Your task to perform on an android device: Go to Yahoo.com Image 0: 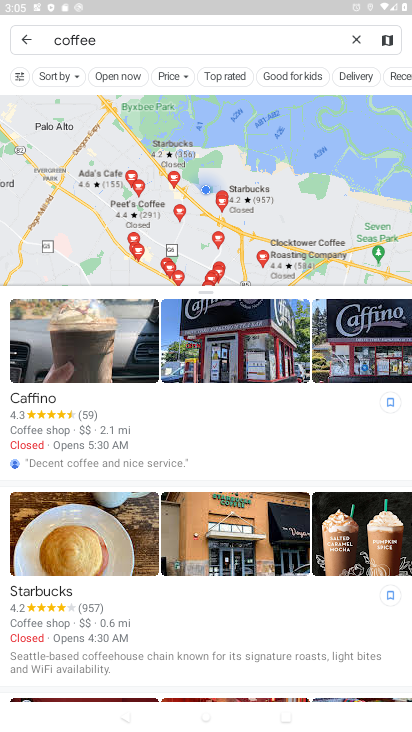
Step 0: press home button
Your task to perform on an android device: Go to Yahoo.com Image 1: 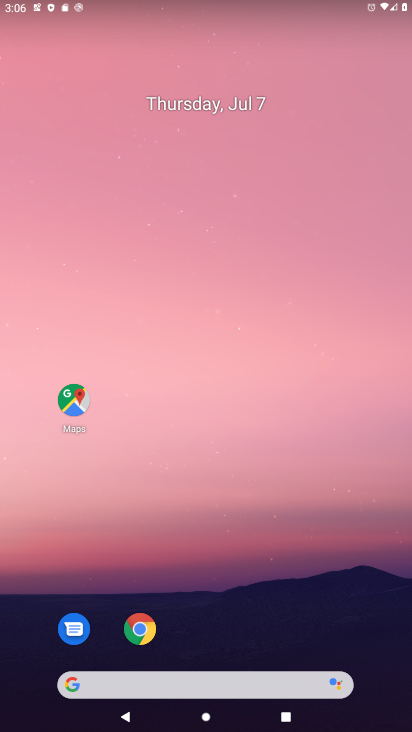
Step 1: click (137, 629)
Your task to perform on an android device: Go to Yahoo.com Image 2: 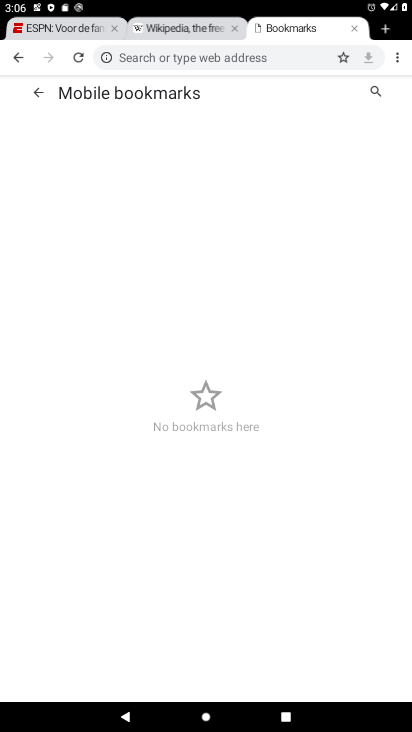
Step 2: click (137, 629)
Your task to perform on an android device: Go to Yahoo.com Image 3: 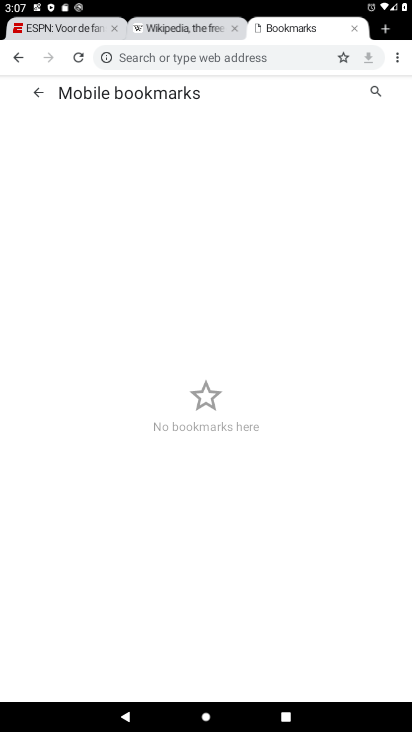
Step 3: click (382, 30)
Your task to perform on an android device: Go to Yahoo.com Image 4: 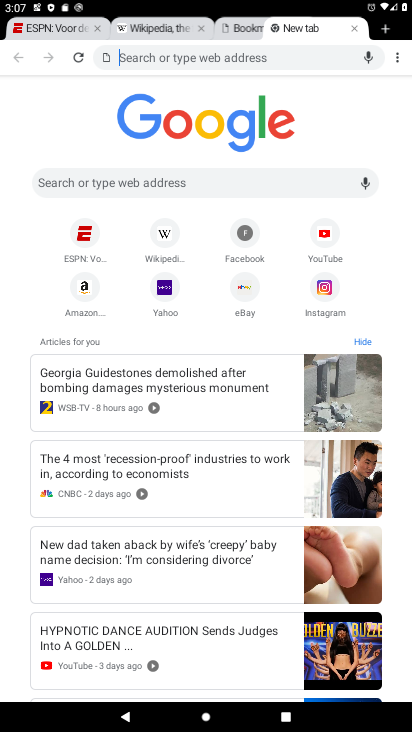
Step 4: click (175, 293)
Your task to perform on an android device: Go to Yahoo.com Image 5: 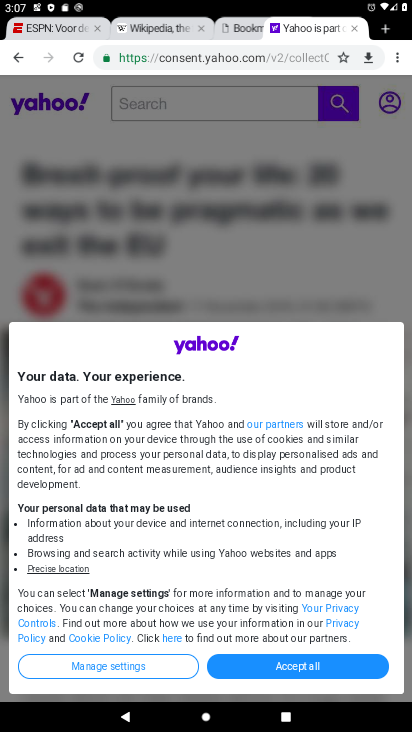
Step 5: task complete